Your task to perform on an android device: empty trash in google photos Image 0: 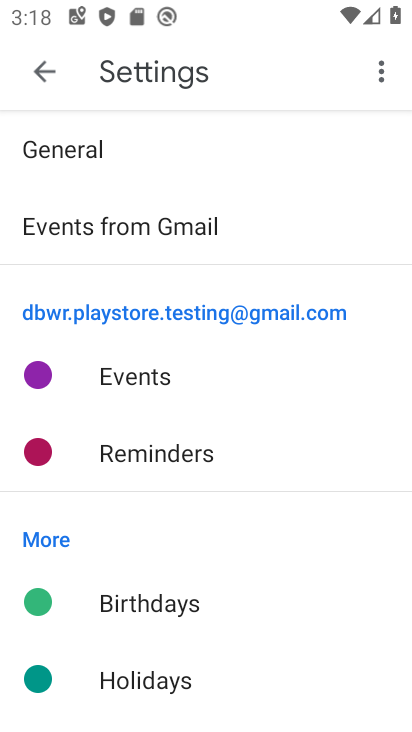
Step 0: press home button
Your task to perform on an android device: empty trash in google photos Image 1: 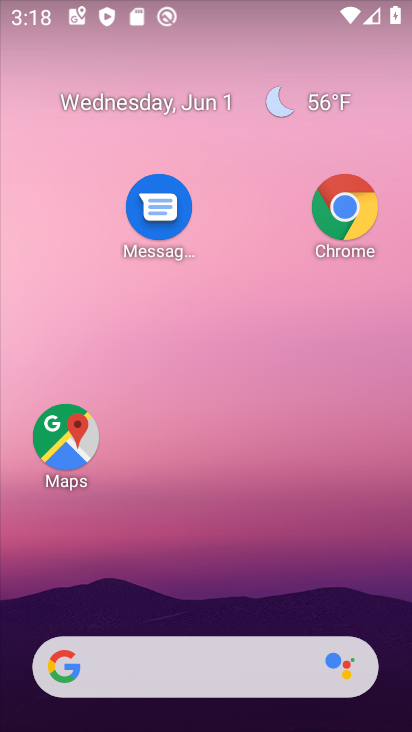
Step 1: drag from (131, 584) to (199, 131)
Your task to perform on an android device: empty trash in google photos Image 2: 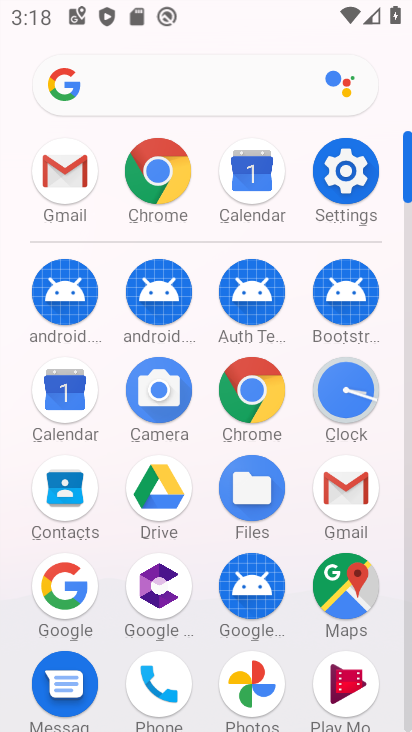
Step 2: click (239, 661)
Your task to perform on an android device: empty trash in google photos Image 3: 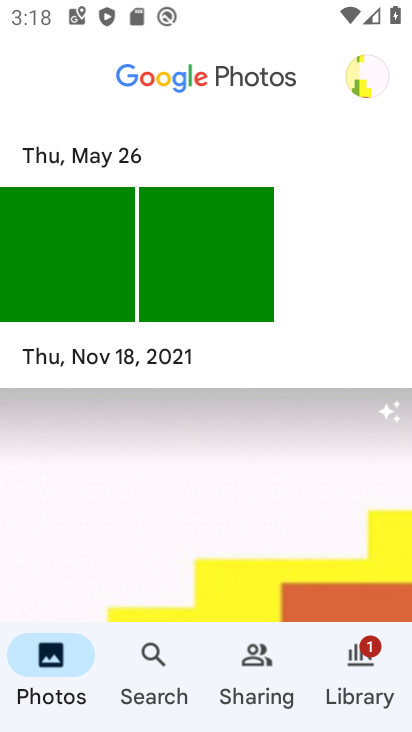
Step 3: click (353, 668)
Your task to perform on an android device: empty trash in google photos Image 4: 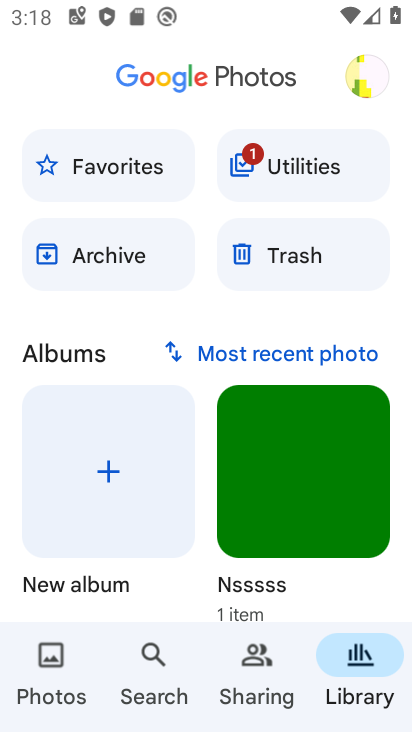
Step 4: click (314, 258)
Your task to perform on an android device: empty trash in google photos Image 5: 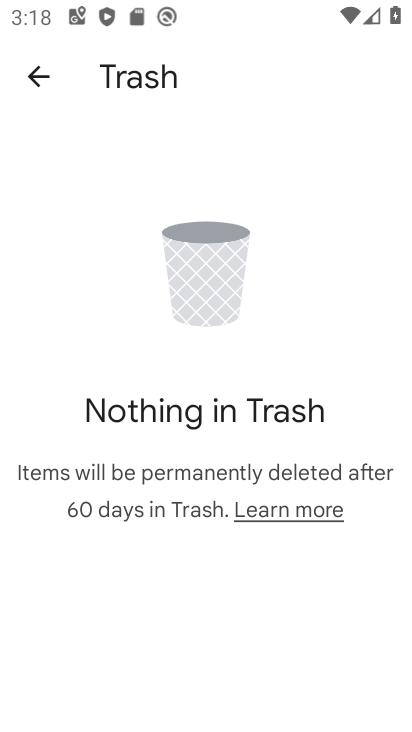
Step 5: task complete